Your task to perform on an android device: open the mobile data screen to see how much data has been used Image 0: 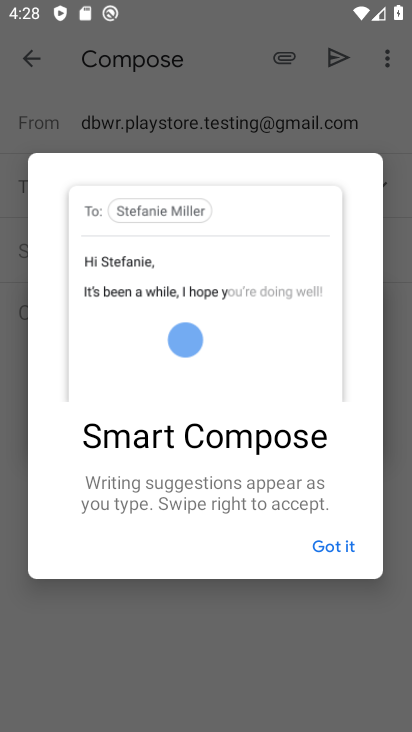
Step 0: press home button
Your task to perform on an android device: open the mobile data screen to see how much data has been used Image 1: 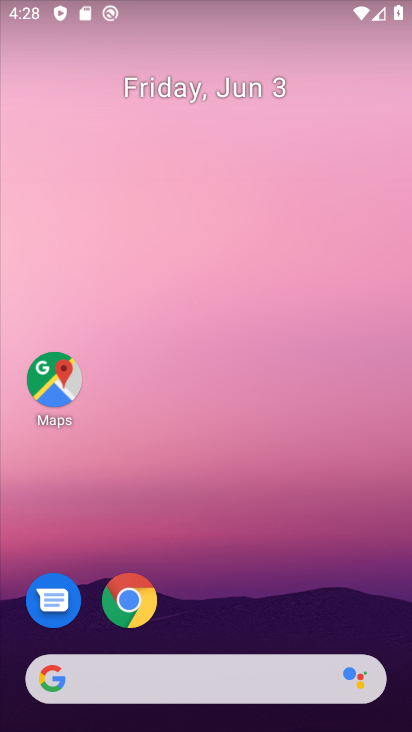
Step 1: drag from (200, 608) to (198, 0)
Your task to perform on an android device: open the mobile data screen to see how much data has been used Image 2: 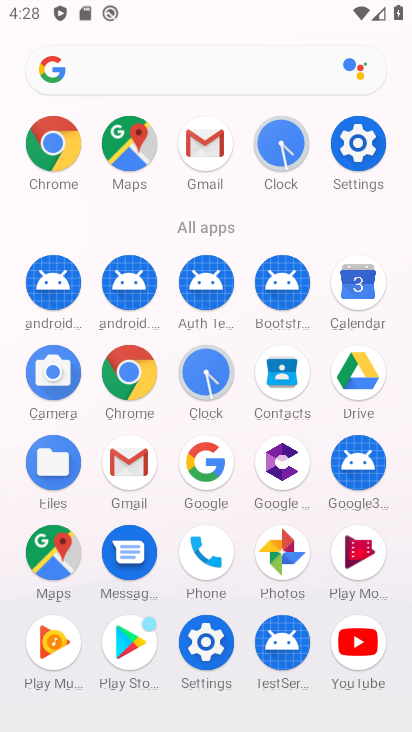
Step 2: click (353, 153)
Your task to perform on an android device: open the mobile data screen to see how much data has been used Image 3: 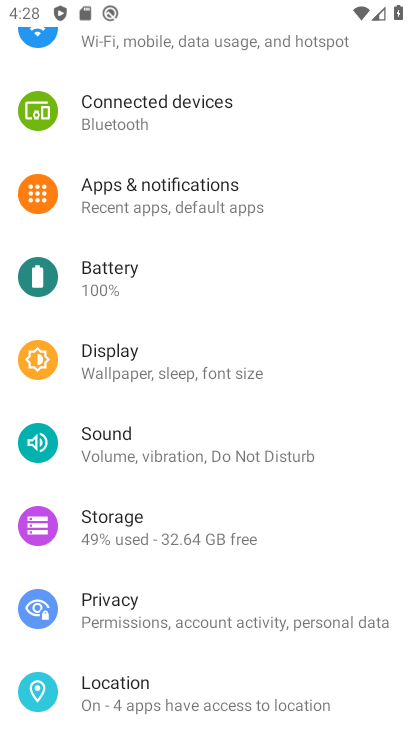
Step 3: drag from (206, 262) to (173, 631)
Your task to perform on an android device: open the mobile data screen to see how much data has been used Image 4: 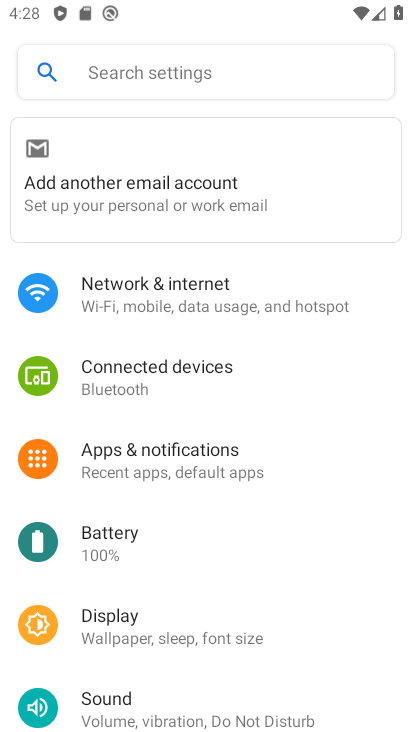
Step 4: click (186, 296)
Your task to perform on an android device: open the mobile data screen to see how much data has been used Image 5: 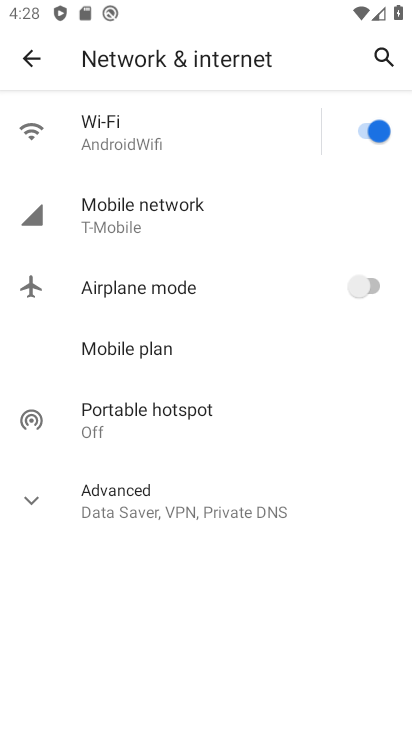
Step 5: click (158, 225)
Your task to perform on an android device: open the mobile data screen to see how much data has been used Image 6: 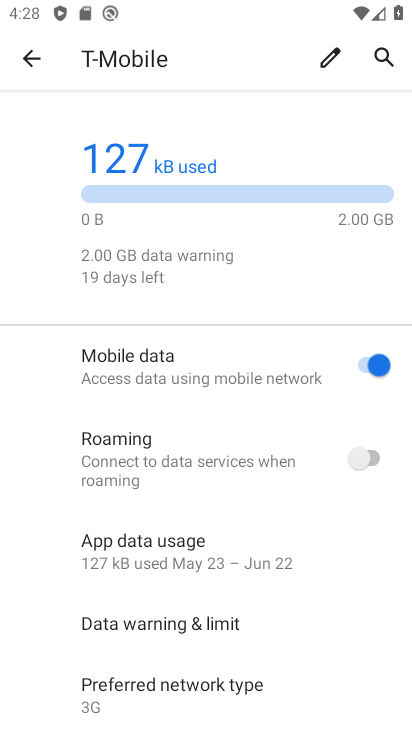
Step 6: click (236, 578)
Your task to perform on an android device: open the mobile data screen to see how much data has been used Image 7: 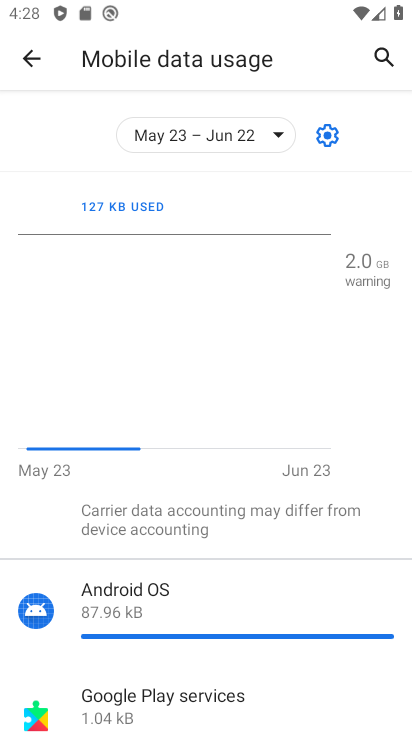
Step 7: task complete